Your task to perform on an android device: Open eBay Image 0: 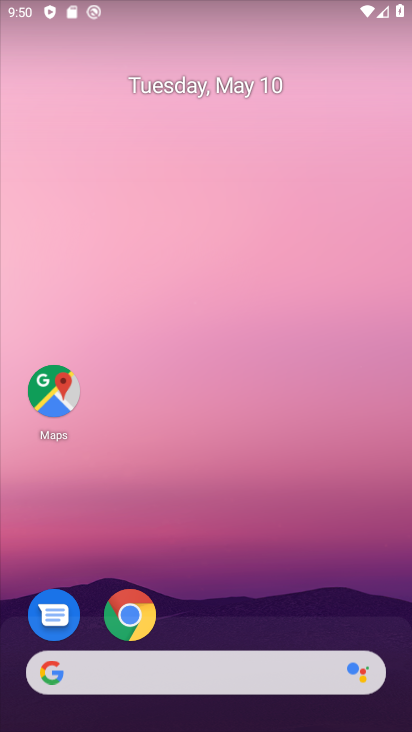
Step 0: drag from (219, 644) to (240, 83)
Your task to perform on an android device: Open eBay Image 1: 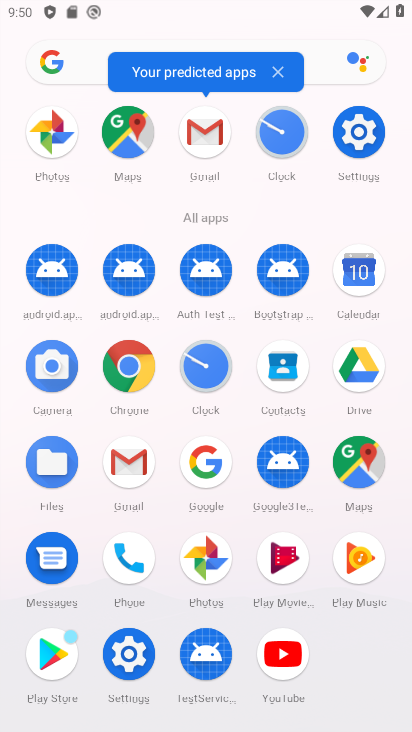
Step 1: click (124, 357)
Your task to perform on an android device: Open eBay Image 2: 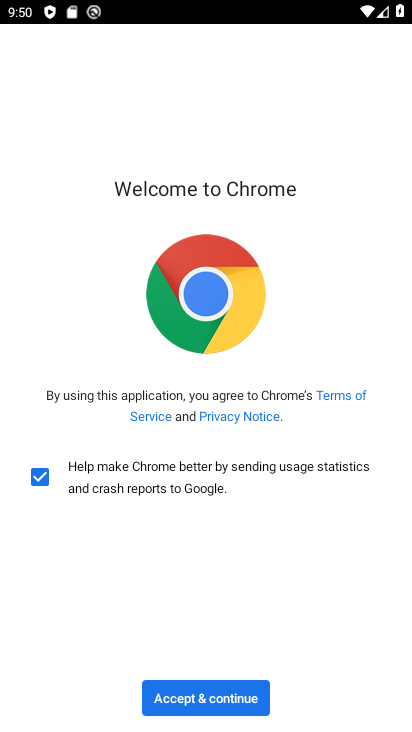
Step 2: click (198, 694)
Your task to perform on an android device: Open eBay Image 3: 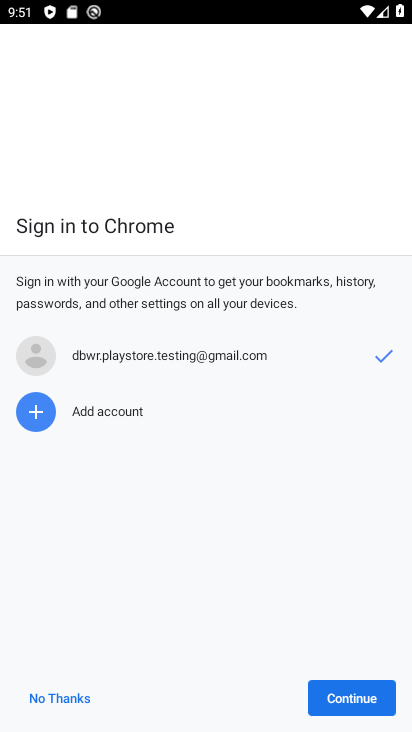
Step 3: click (347, 698)
Your task to perform on an android device: Open eBay Image 4: 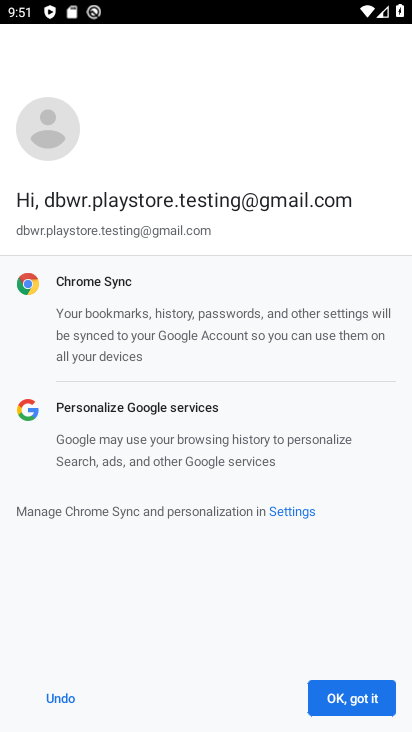
Step 4: click (356, 699)
Your task to perform on an android device: Open eBay Image 5: 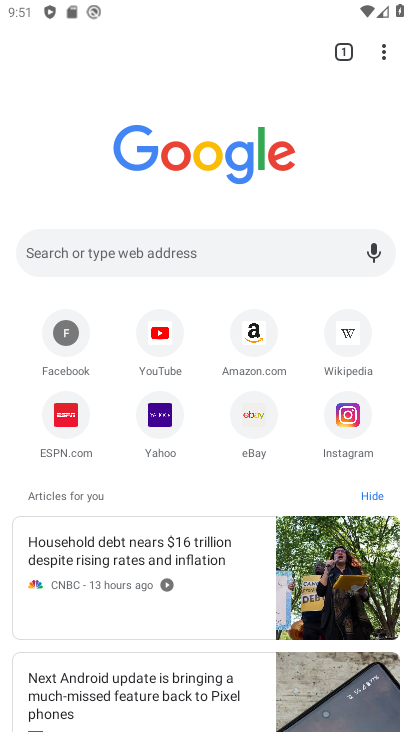
Step 5: click (254, 407)
Your task to perform on an android device: Open eBay Image 6: 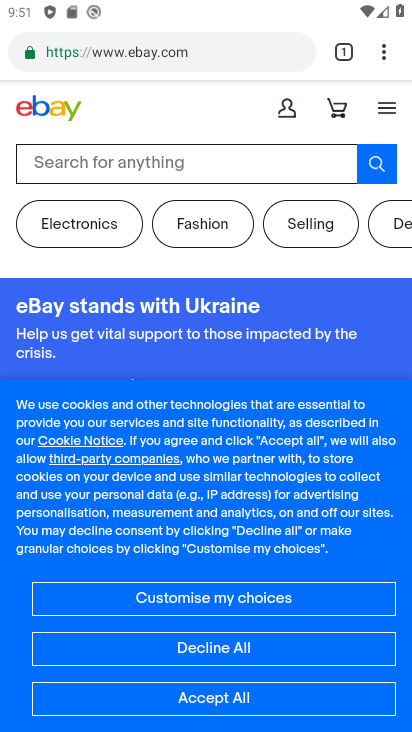
Step 6: task complete